Your task to perform on an android device: Turn off the flashlight Image 0: 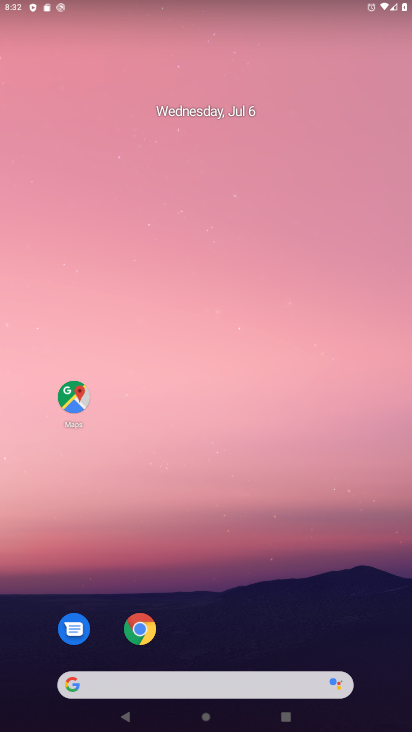
Step 0: drag from (104, 720) to (236, 51)
Your task to perform on an android device: Turn off the flashlight Image 1: 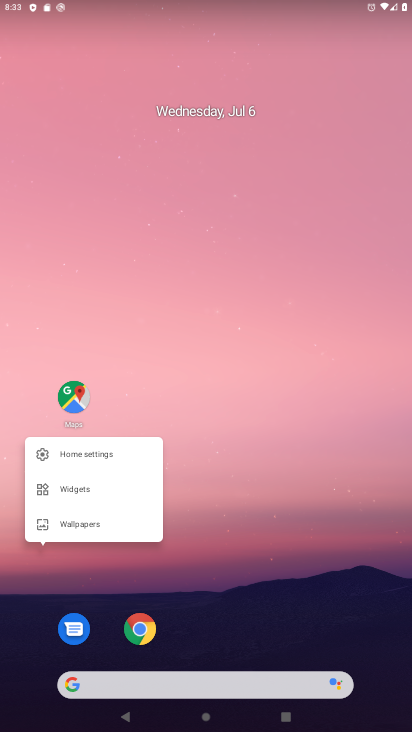
Step 1: task complete